Your task to perform on an android device: What's on my calendar today? Image 0: 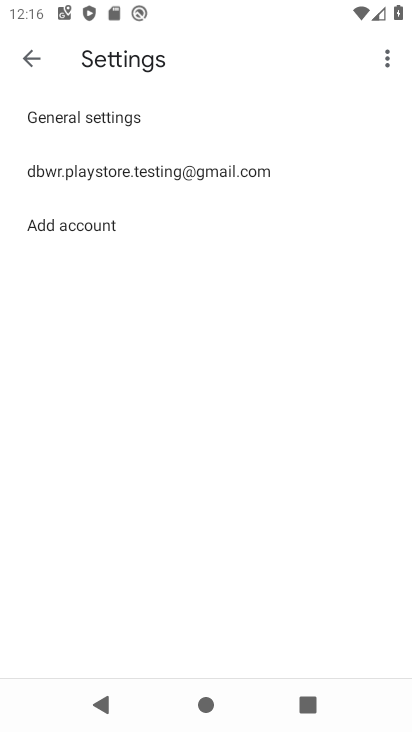
Step 0: press home button
Your task to perform on an android device: What's on my calendar today? Image 1: 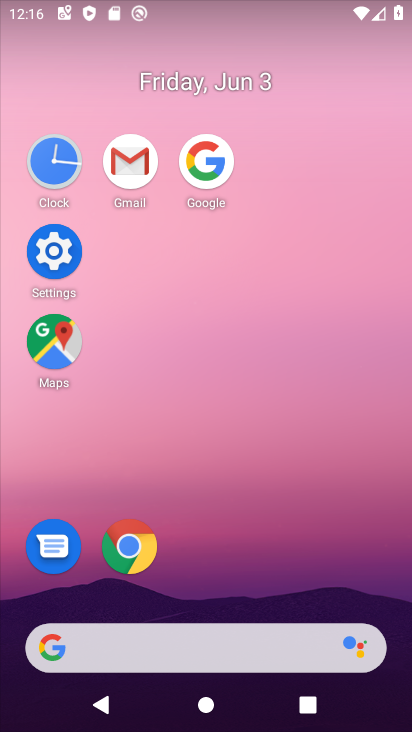
Step 1: drag from (279, 582) to (304, 85)
Your task to perform on an android device: What's on my calendar today? Image 2: 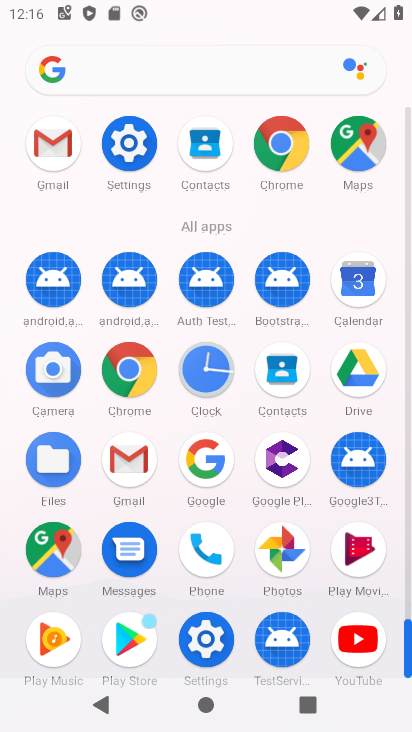
Step 2: drag from (346, 285) to (128, 263)
Your task to perform on an android device: What's on my calendar today? Image 3: 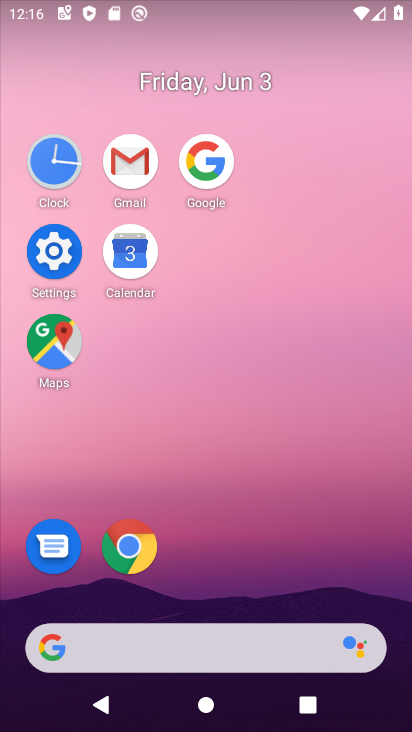
Step 3: click (143, 273)
Your task to perform on an android device: What's on my calendar today? Image 4: 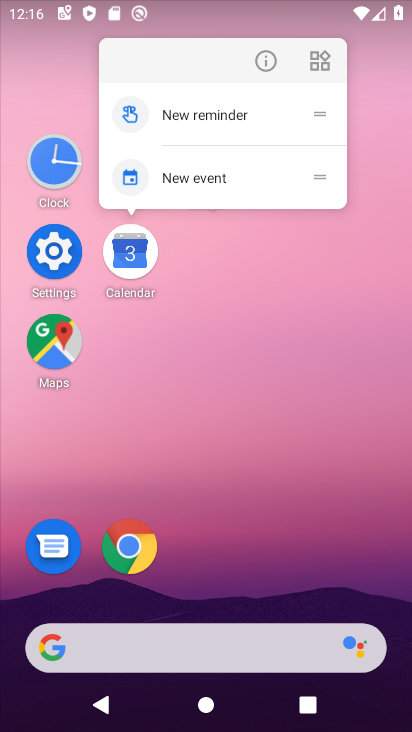
Step 4: click (139, 262)
Your task to perform on an android device: What's on my calendar today? Image 5: 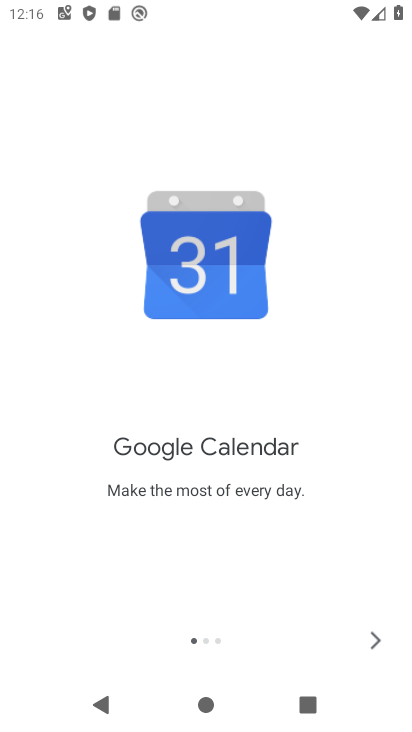
Step 5: click (378, 637)
Your task to perform on an android device: What's on my calendar today? Image 6: 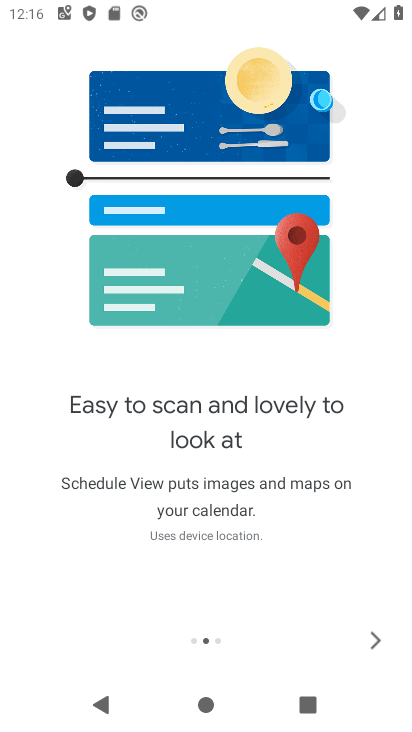
Step 6: click (383, 637)
Your task to perform on an android device: What's on my calendar today? Image 7: 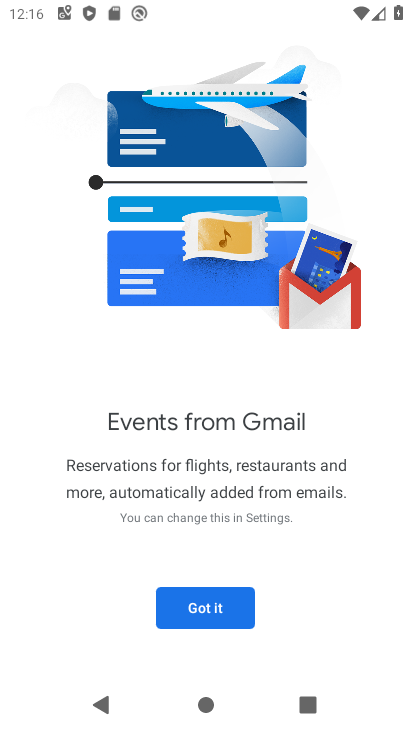
Step 7: click (383, 637)
Your task to perform on an android device: What's on my calendar today? Image 8: 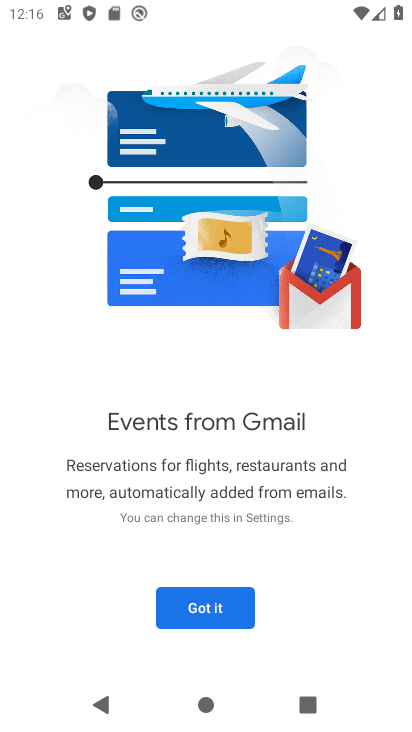
Step 8: click (222, 604)
Your task to perform on an android device: What's on my calendar today? Image 9: 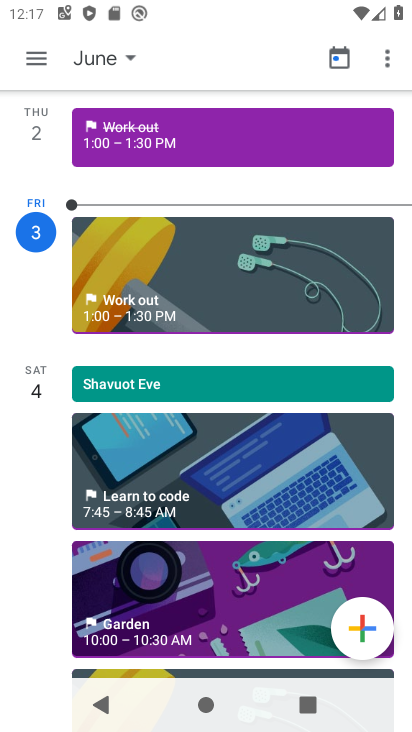
Step 9: click (37, 59)
Your task to perform on an android device: What's on my calendar today? Image 10: 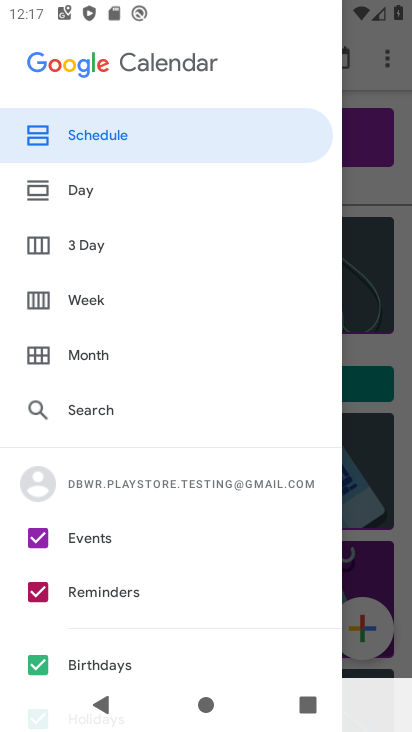
Step 10: click (105, 190)
Your task to perform on an android device: What's on my calendar today? Image 11: 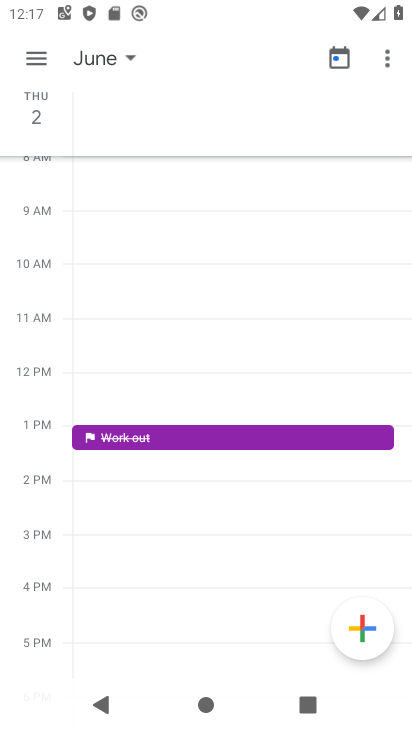
Step 11: task complete